Your task to perform on an android device: check the backup settings in the google photos Image 0: 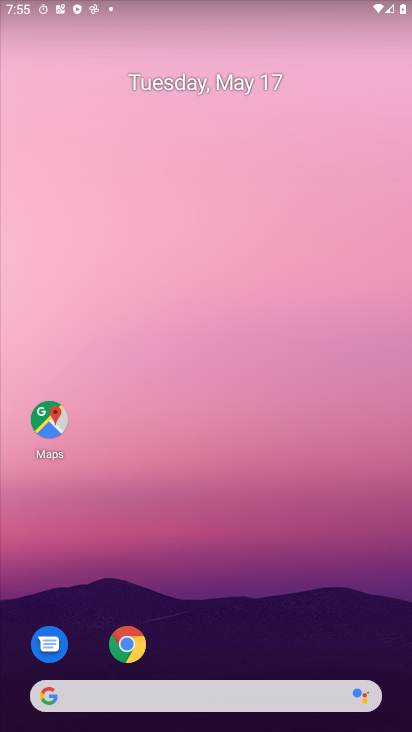
Step 0: drag from (379, 610) to (202, 68)
Your task to perform on an android device: check the backup settings in the google photos Image 1: 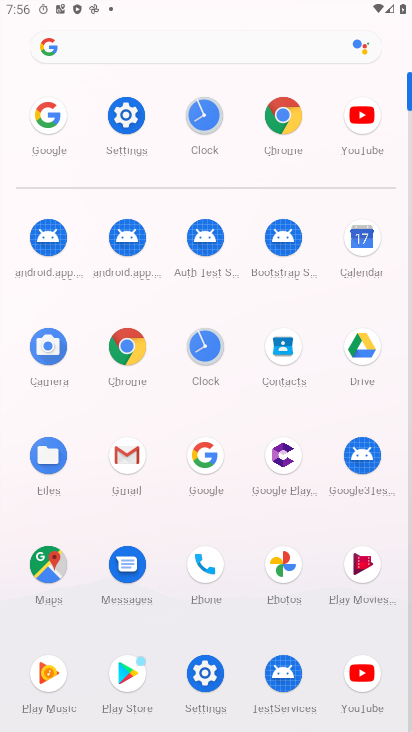
Step 1: click (277, 571)
Your task to perform on an android device: check the backup settings in the google photos Image 2: 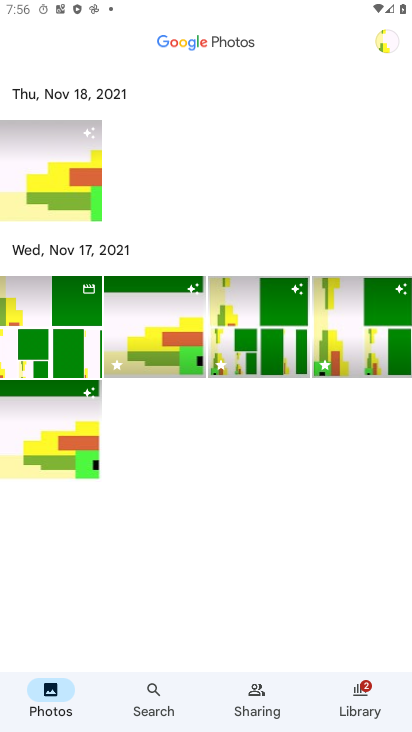
Step 2: click (379, 34)
Your task to perform on an android device: check the backup settings in the google photos Image 3: 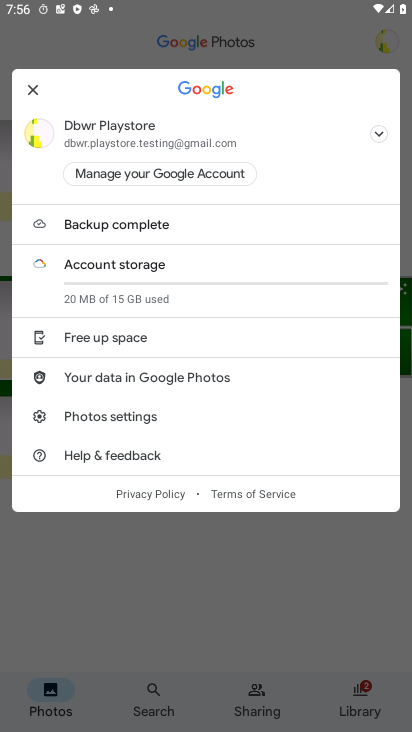
Step 3: click (147, 424)
Your task to perform on an android device: check the backup settings in the google photos Image 4: 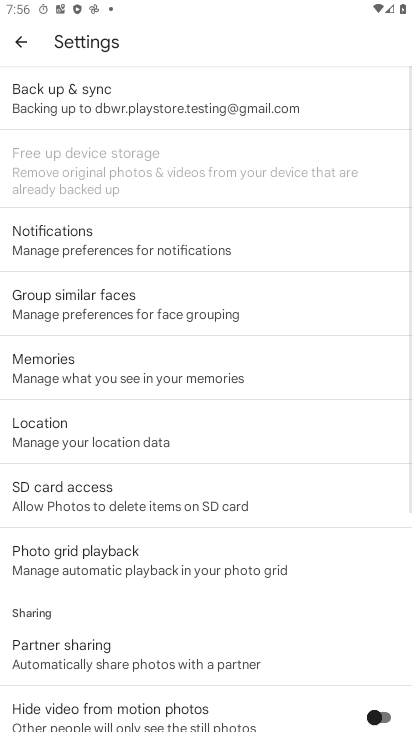
Step 4: click (133, 90)
Your task to perform on an android device: check the backup settings in the google photos Image 5: 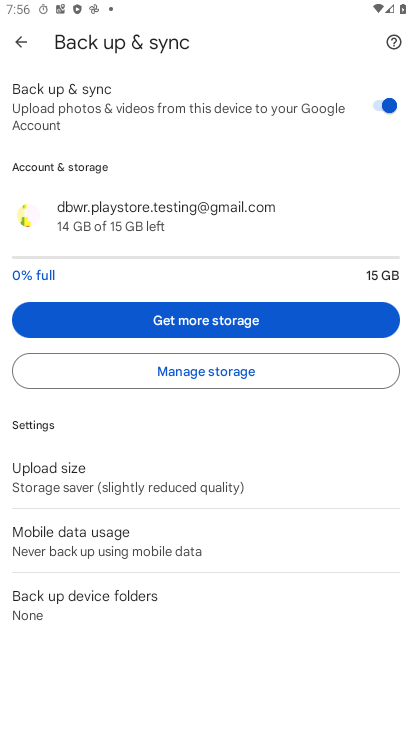
Step 5: task complete